Your task to perform on an android device: turn off priority inbox in the gmail app Image 0: 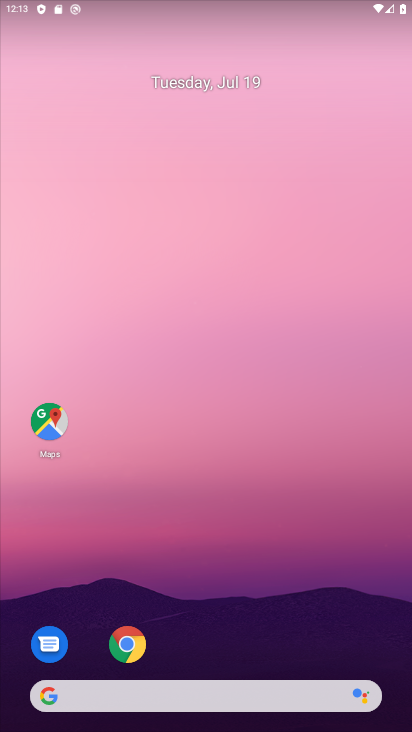
Step 0: drag from (205, 664) to (226, 65)
Your task to perform on an android device: turn off priority inbox in the gmail app Image 1: 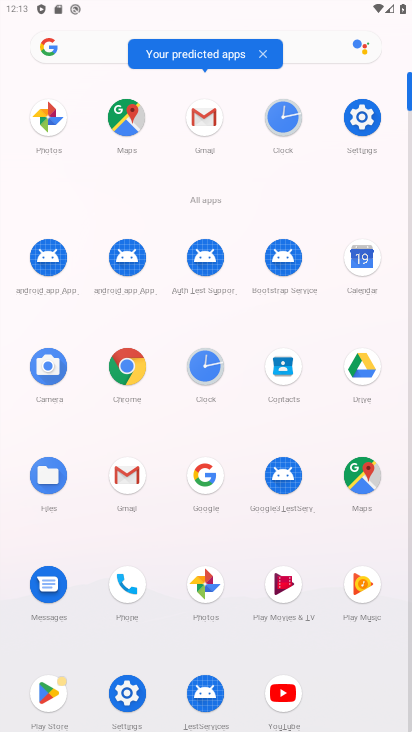
Step 1: click (124, 467)
Your task to perform on an android device: turn off priority inbox in the gmail app Image 2: 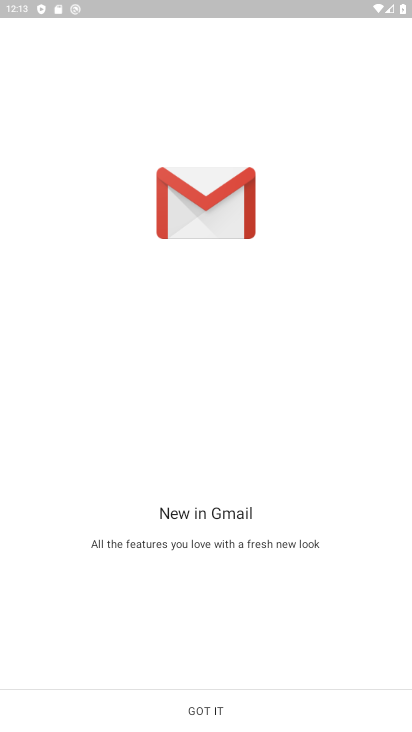
Step 2: click (228, 703)
Your task to perform on an android device: turn off priority inbox in the gmail app Image 3: 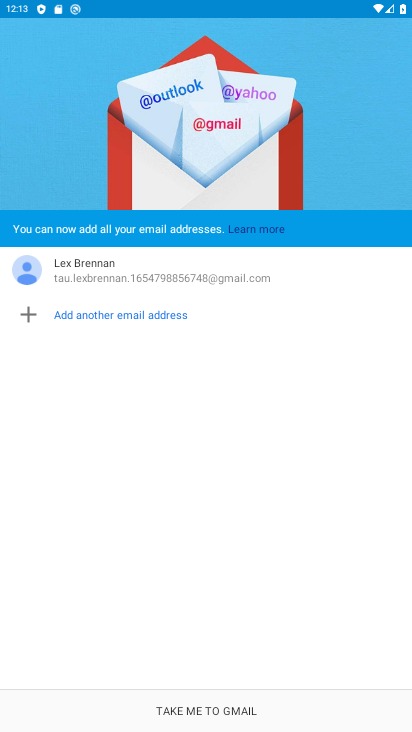
Step 3: click (230, 720)
Your task to perform on an android device: turn off priority inbox in the gmail app Image 4: 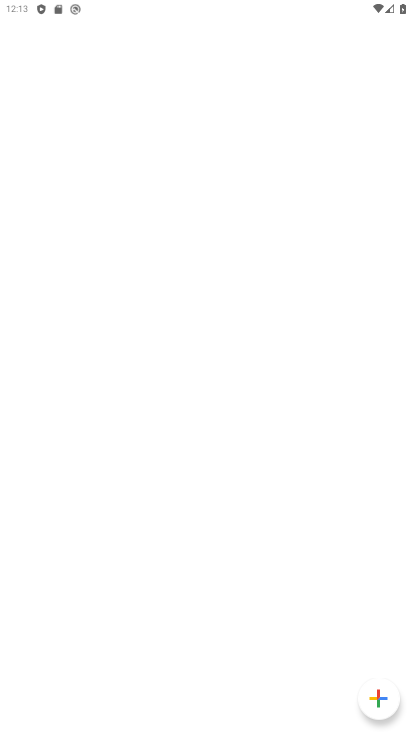
Step 4: click (249, 714)
Your task to perform on an android device: turn off priority inbox in the gmail app Image 5: 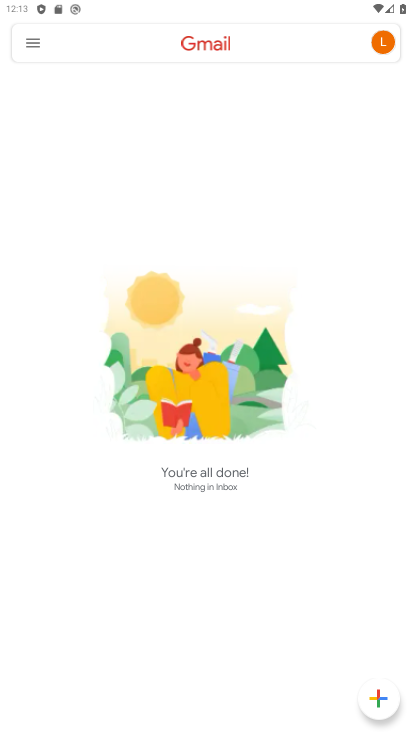
Step 5: click (37, 44)
Your task to perform on an android device: turn off priority inbox in the gmail app Image 6: 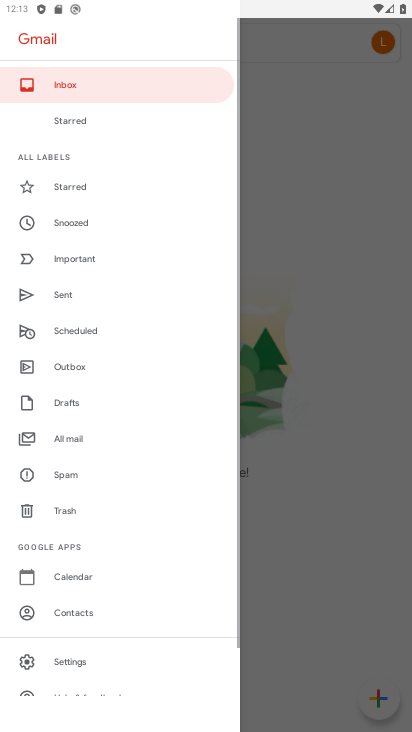
Step 6: click (87, 662)
Your task to perform on an android device: turn off priority inbox in the gmail app Image 7: 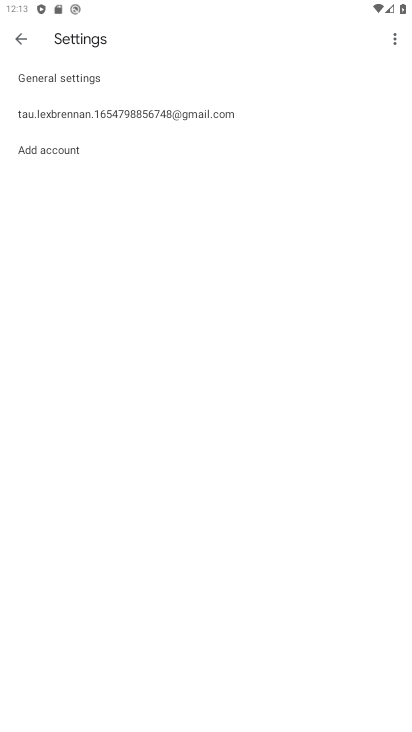
Step 7: click (227, 121)
Your task to perform on an android device: turn off priority inbox in the gmail app Image 8: 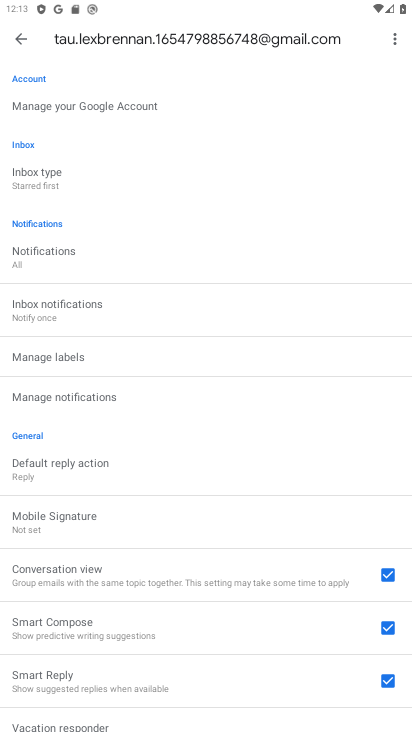
Step 8: click (110, 188)
Your task to perform on an android device: turn off priority inbox in the gmail app Image 9: 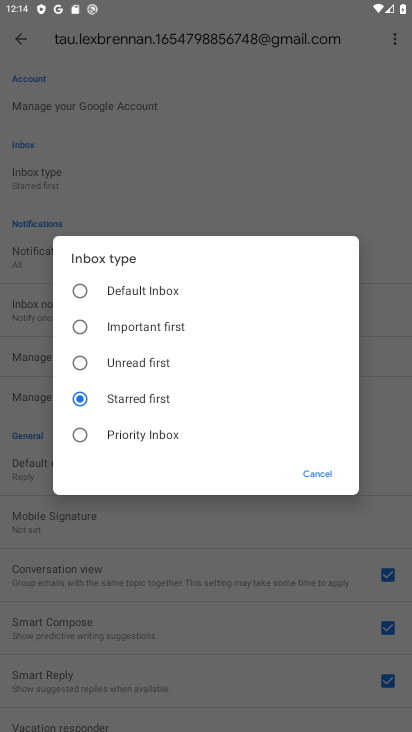
Step 9: task complete